Your task to perform on an android device: refresh tabs in the chrome app Image 0: 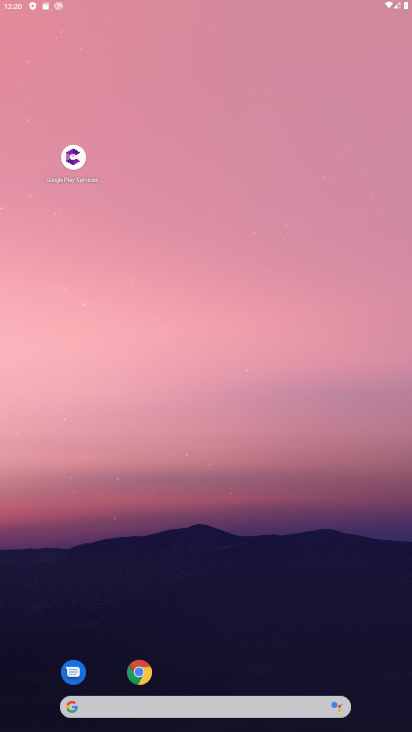
Step 0: drag from (90, 670) to (285, 40)
Your task to perform on an android device: refresh tabs in the chrome app Image 1: 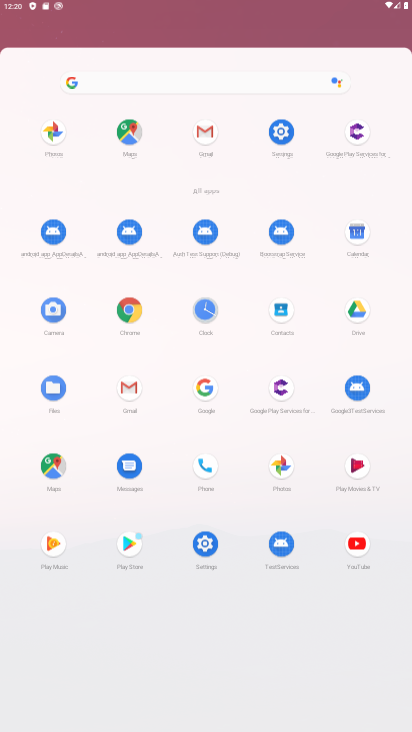
Step 1: drag from (182, 547) to (251, 144)
Your task to perform on an android device: refresh tabs in the chrome app Image 2: 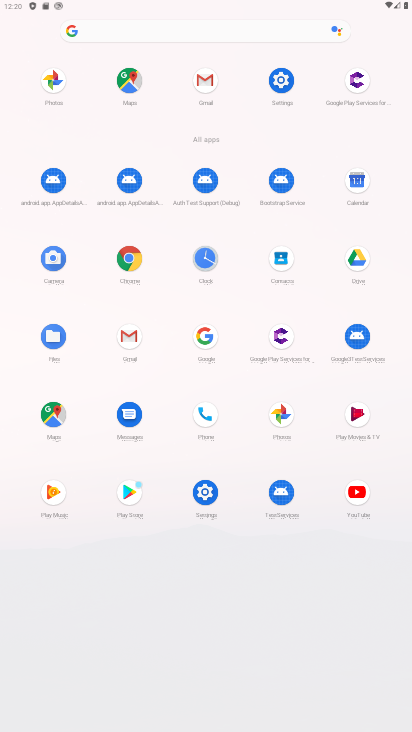
Step 2: click (127, 257)
Your task to perform on an android device: refresh tabs in the chrome app Image 3: 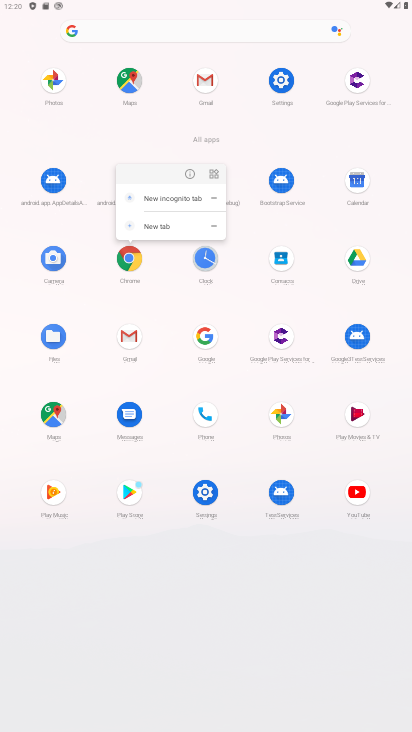
Step 3: click (186, 170)
Your task to perform on an android device: refresh tabs in the chrome app Image 4: 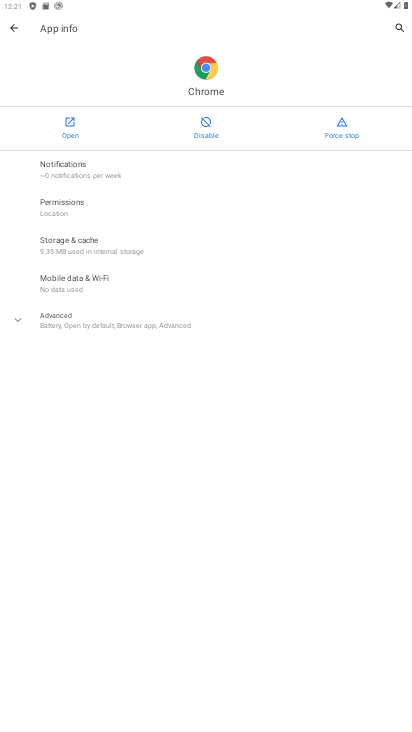
Step 4: click (68, 124)
Your task to perform on an android device: refresh tabs in the chrome app Image 5: 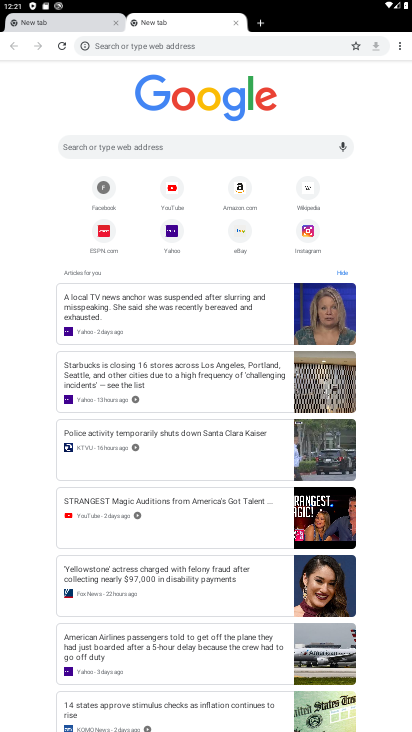
Step 5: click (399, 49)
Your task to perform on an android device: refresh tabs in the chrome app Image 6: 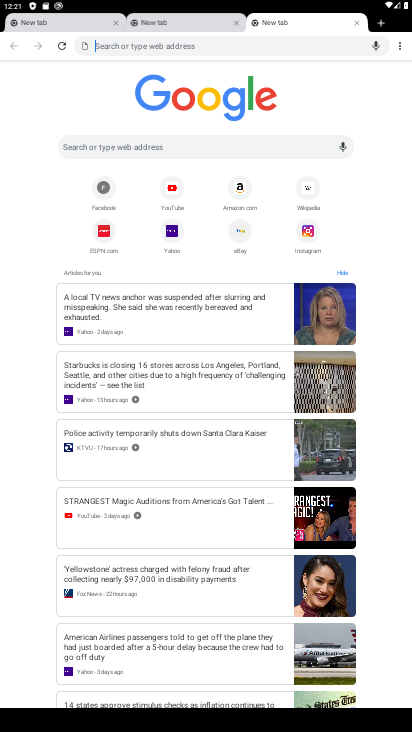
Step 6: task complete